Your task to perform on an android device: star an email in the gmail app Image 0: 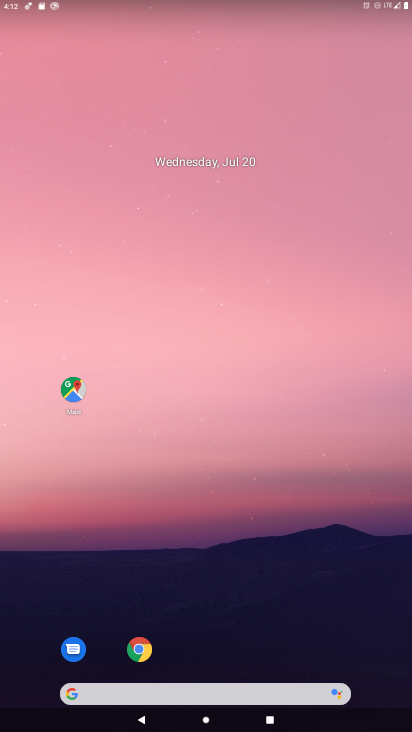
Step 0: drag from (214, 689) to (260, 174)
Your task to perform on an android device: star an email in the gmail app Image 1: 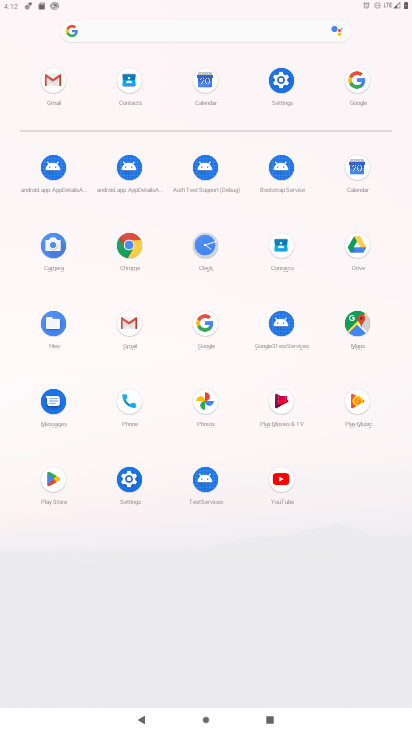
Step 1: click (51, 80)
Your task to perform on an android device: star an email in the gmail app Image 2: 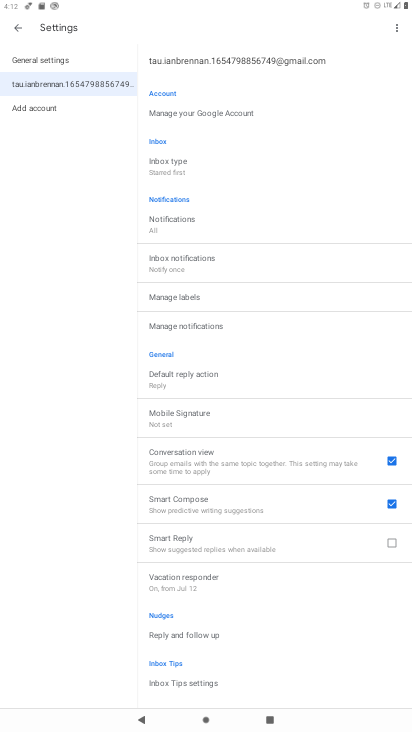
Step 2: press back button
Your task to perform on an android device: star an email in the gmail app Image 3: 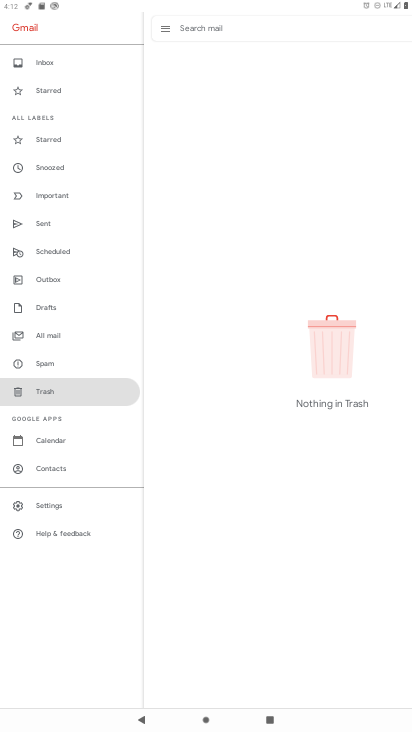
Step 3: click (61, 338)
Your task to perform on an android device: star an email in the gmail app Image 4: 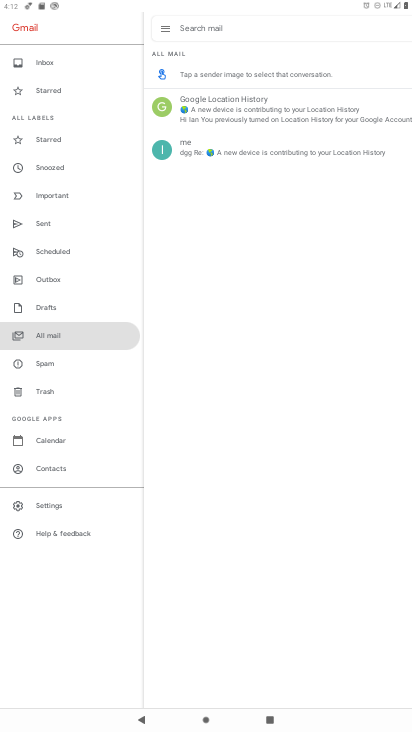
Step 4: click (270, 111)
Your task to perform on an android device: star an email in the gmail app Image 5: 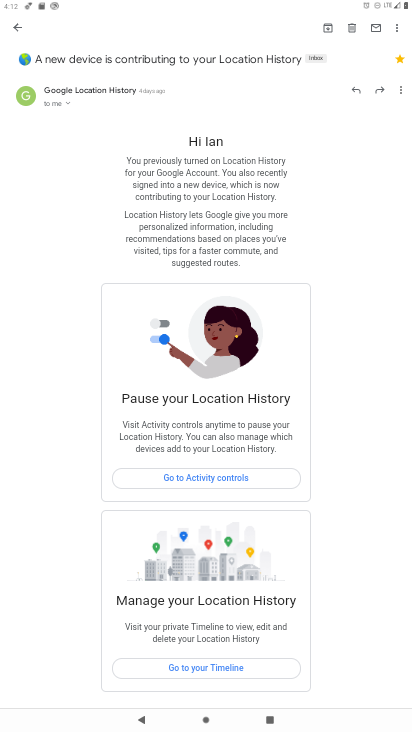
Step 5: task complete